Your task to perform on an android device: search for starred emails in the gmail app Image 0: 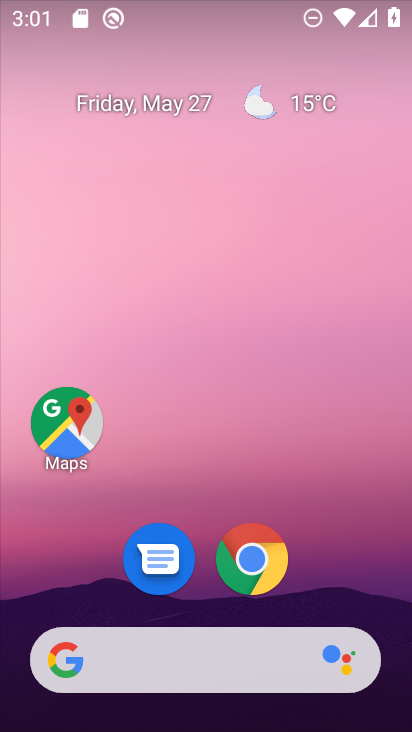
Step 0: drag from (80, 685) to (215, 32)
Your task to perform on an android device: search for starred emails in the gmail app Image 1: 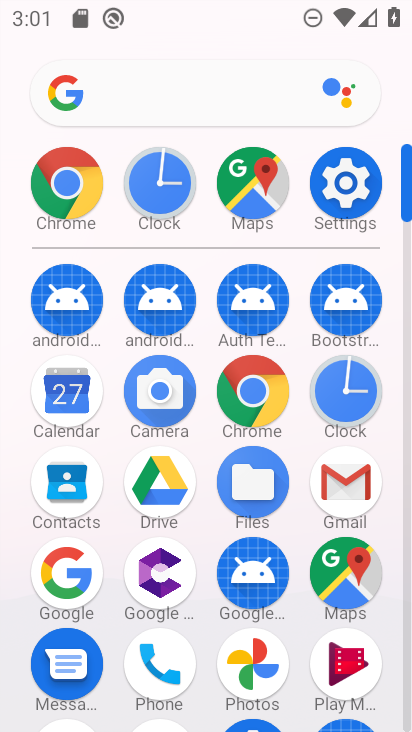
Step 1: click (339, 485)
Your task to perform on an android device: search for starred emails in the gmail app Image 2: 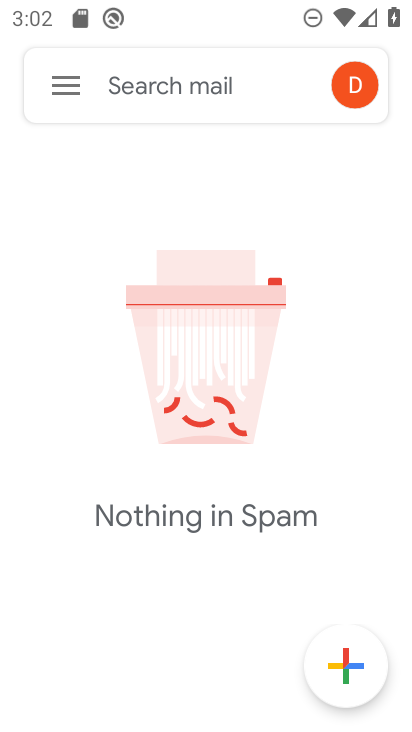
Step 2: click (71, 80)
Your task to perform on an android device: search for starred emails in the gmail app Image 3: 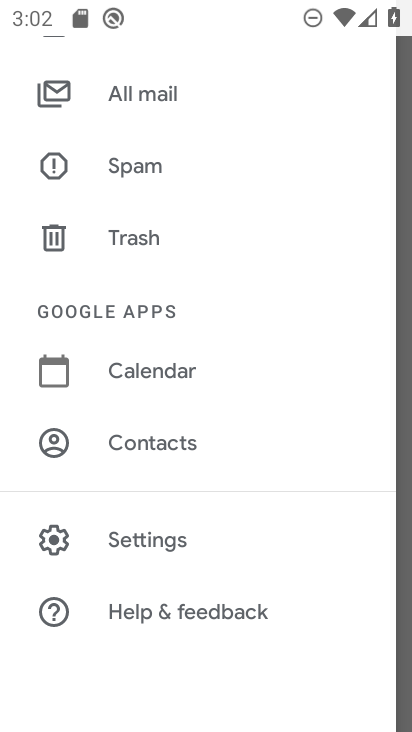
Step 3: drag from (174, 174) to (217, 689)
Your task to perform on an android device: search for starred emails in the gmail app Image 4: 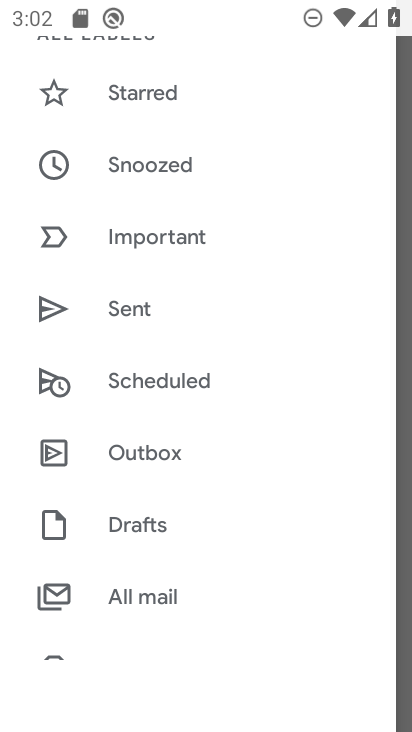
Step 4: click (165, 93)
Your task to perform on an android device: search for starred emails in the gmail app Image 5: 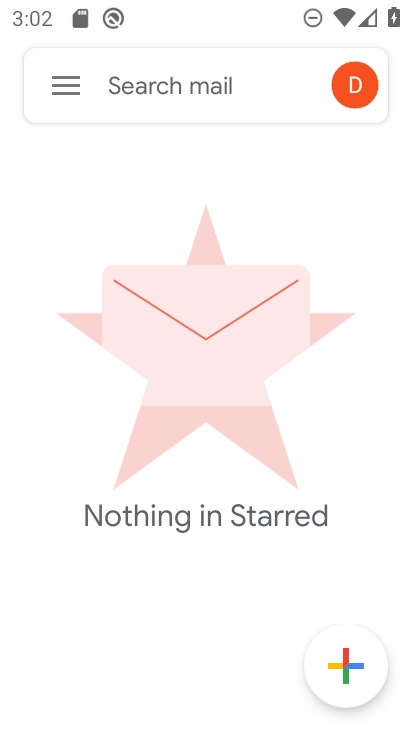
Step 5: task complete